Your task to perform on an android device: see tabs open on other devices in the chrome app Image 0: 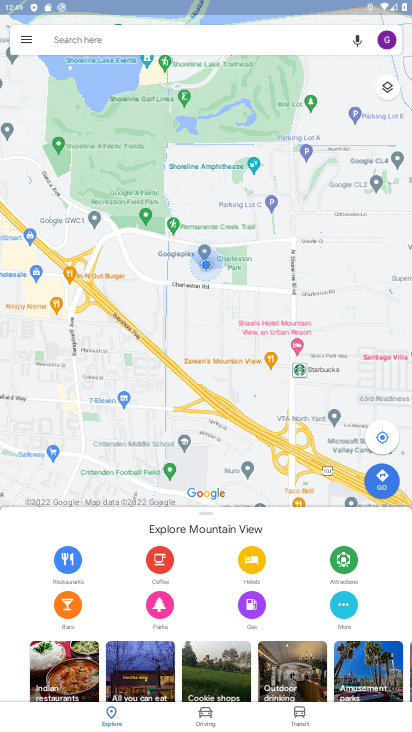
Step 0: press home button
Your task to perform on an android device: see tabs open on other devices in the chrome app Image 1: 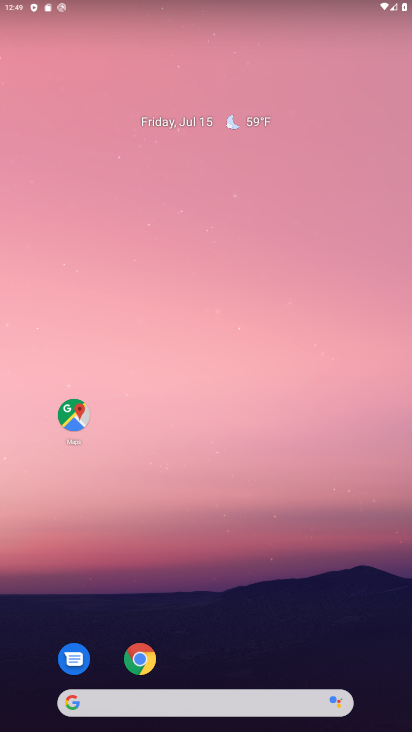
Step 1: click (140, 659)
Your task to perform on an android device: see tabs open on other devices in the chrome app Image 2: 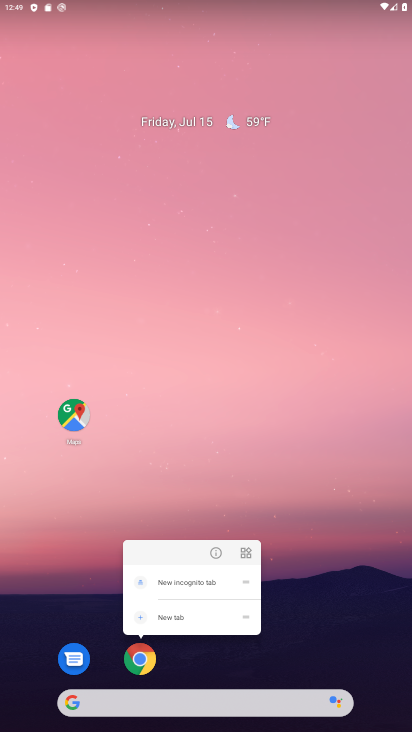
Step 2: click (136, 661)
Your task to perform on an android device: see tabs open on other devices in the chrome app Image 3: 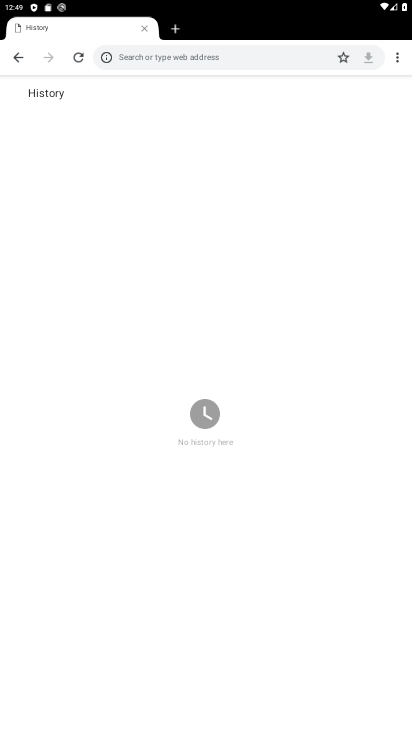
Step 3: click (54, 26)
Your task to perform on an android device: see tabs open on other devices in the chrome app Image 4: 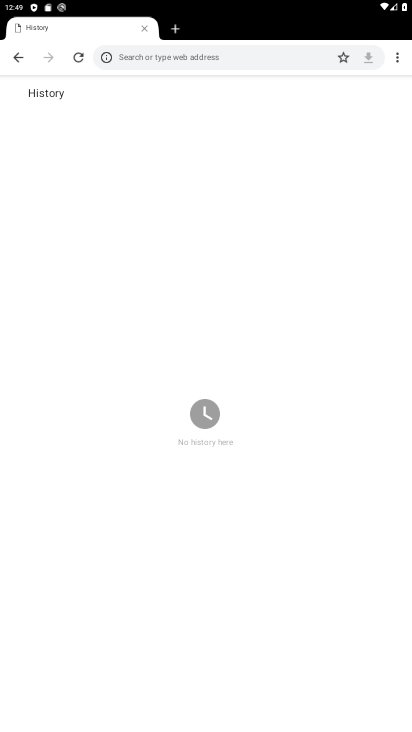
Step 4: click (392, 59)
Your task to perform on an android device: see tabs open on other devices in the chrome app Image 5: 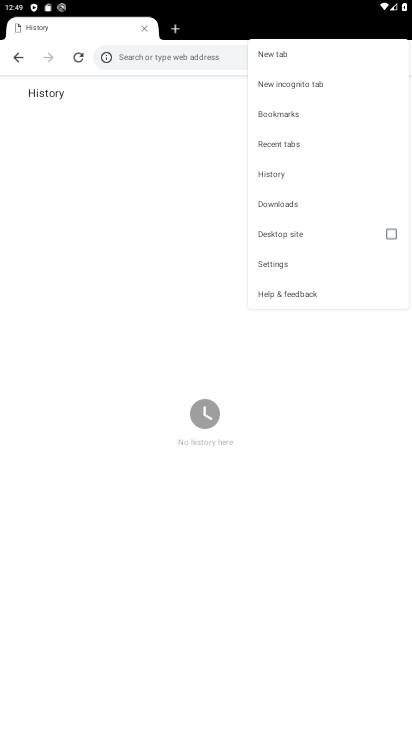
Step 5: click (291, 145)
Your task to perform on an android device: see tabs open on other devices in the chrome app Image 6: 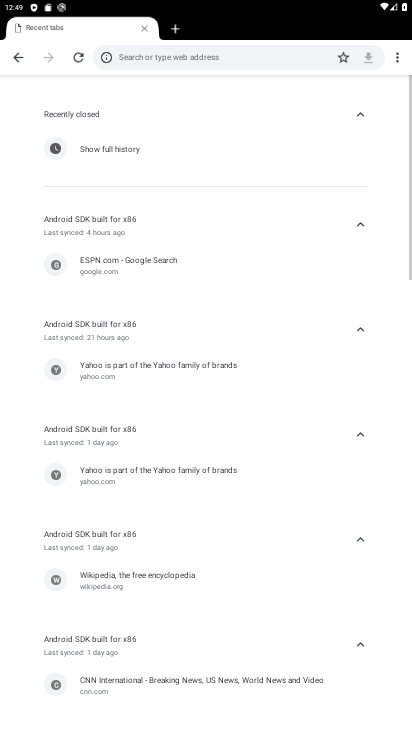
Step 6: task complete